Your task to perform on an android device: Open calendar and show me the second week of next month Image 0: 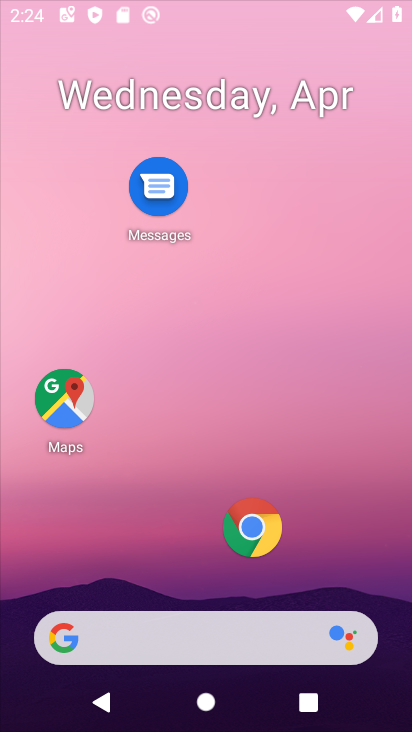
Step 0: drag from (197, 250) to (196, 135)
Your task to perform on an android device: Open calendar and show me the second week of next month Image 1: 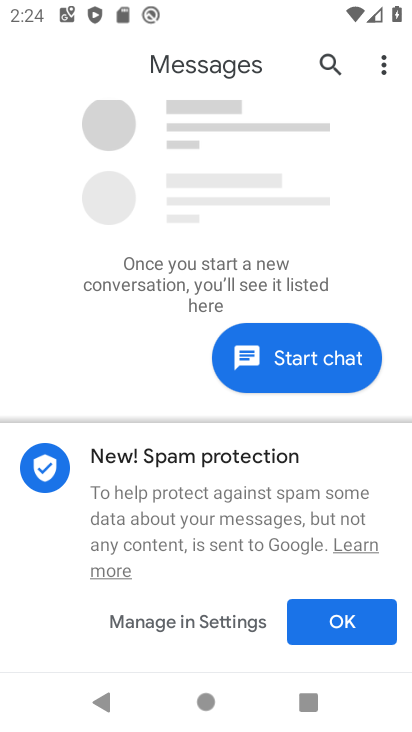
Step 1: press home button
Your task to perform on an android device: Open calendar and show me the second week of next month Image 2: 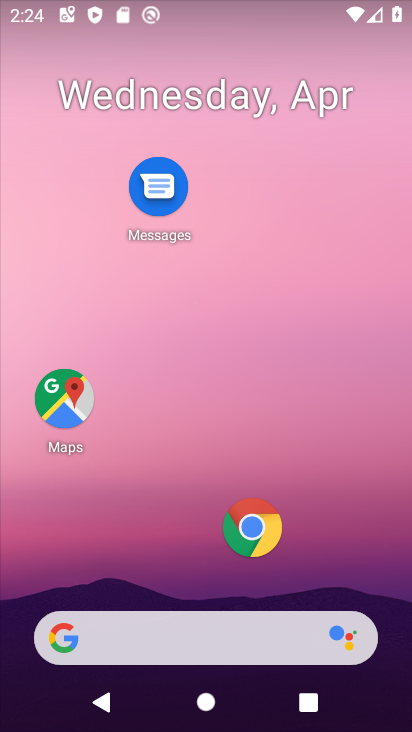
Step 2: drag from (176, 568) to (217, 146)
Your task to perform on an android device: Open calendar and show me the second week of next month Image 3: 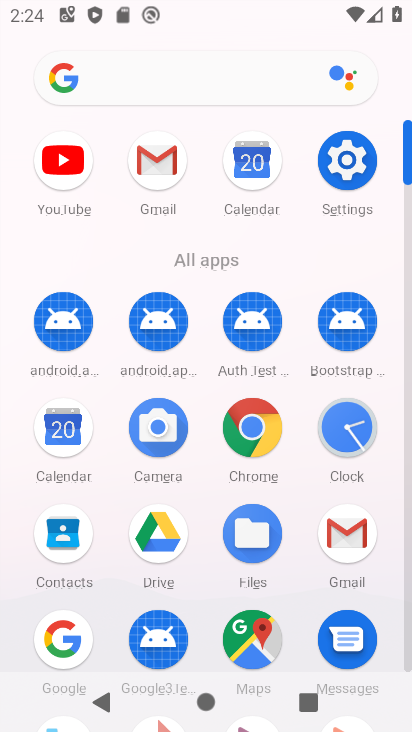
Step 3: click (57, 424)
Your task to perform on an android device: Open calendar and show me the second week of next month Image 4: 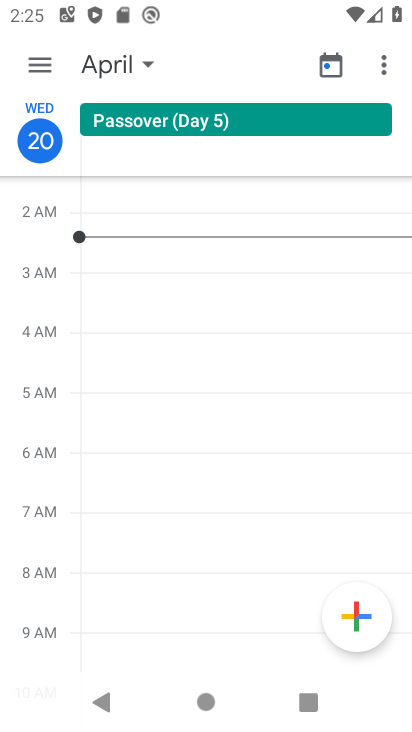
Step 4: click (133, 74)
Your task to perform on an android device: Open calendar and show me the second week of next month Image 5: 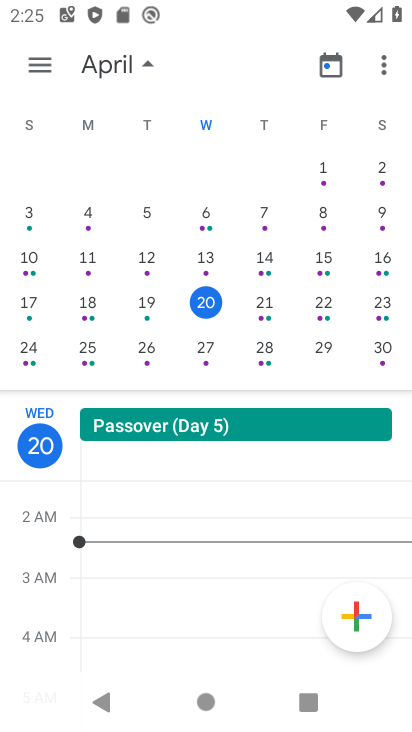
Step 5: drag from (342, 246) to (24, 224)
Your task to perform on an android device: Open calendar and show me the second week of next month Image 6: 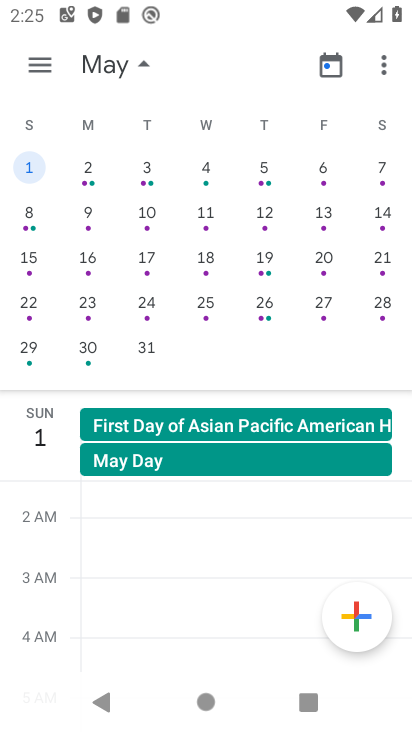
Step 6: click (88, 216)
Your task to perform on an android device: Open calendar and show me the second week of next month Image 7: 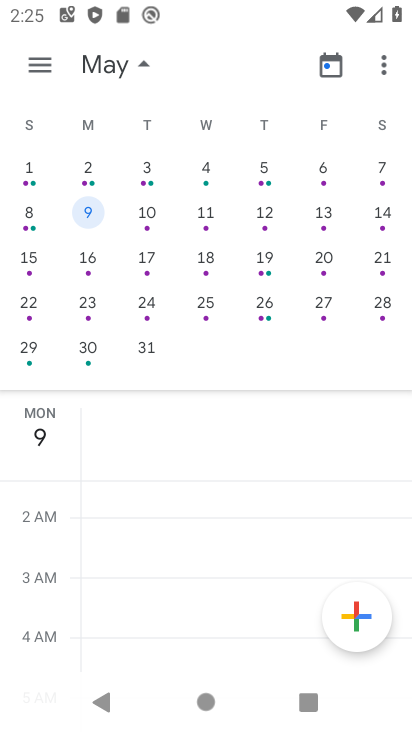
Step 7: click (37, 212)
Your task to perform on an android device: Open calendar and show me the second week of next month Image 8: 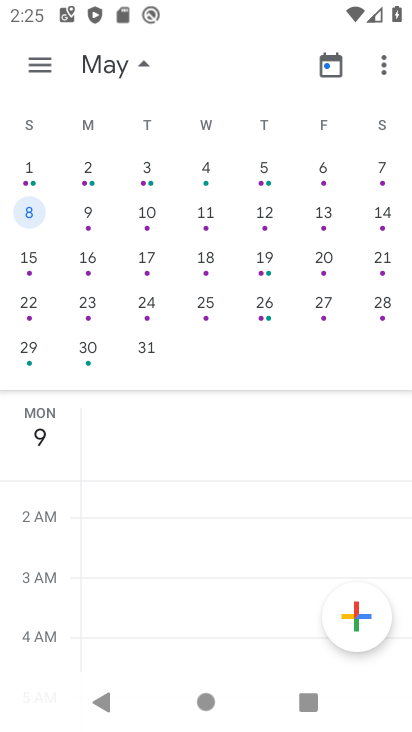
Step 8: click (38, 51)
Your task to perform on an android device: Open calendar and show me the second week of next month Image 9: 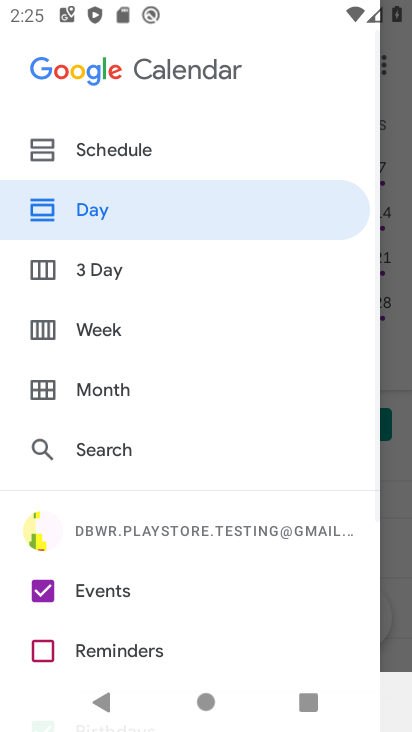
Step 9: click (127, 325)
Your task to perform on an android device: Open calendar and show me the second week of next month Image 10: 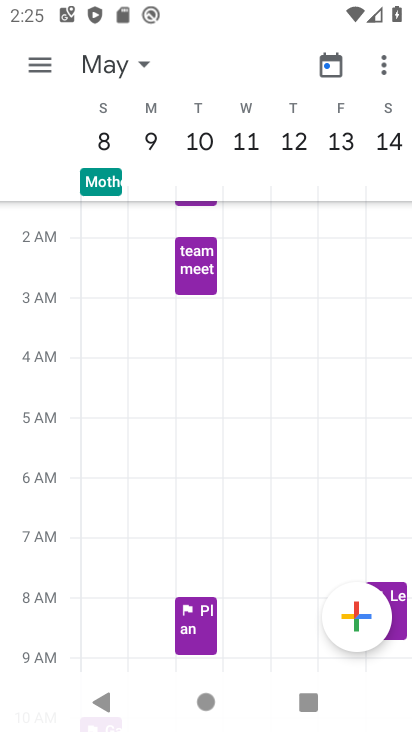
Step 10: task complete